Your task to perform on an android device: Toggle the flashlight Image 0: 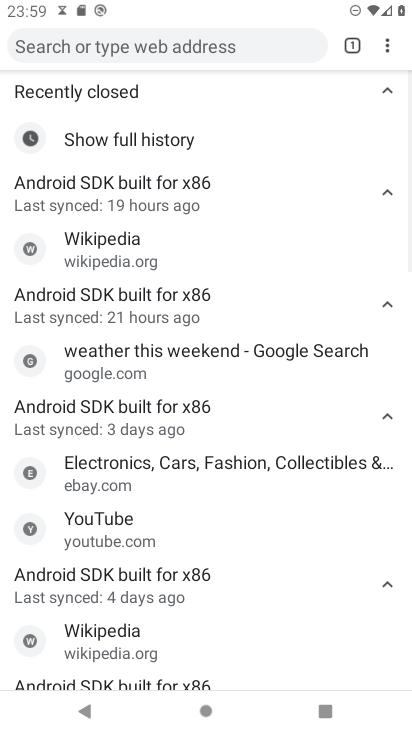
Step 0: press home button
Your task to perform on an android device: Toggle the flashlight Image 1: 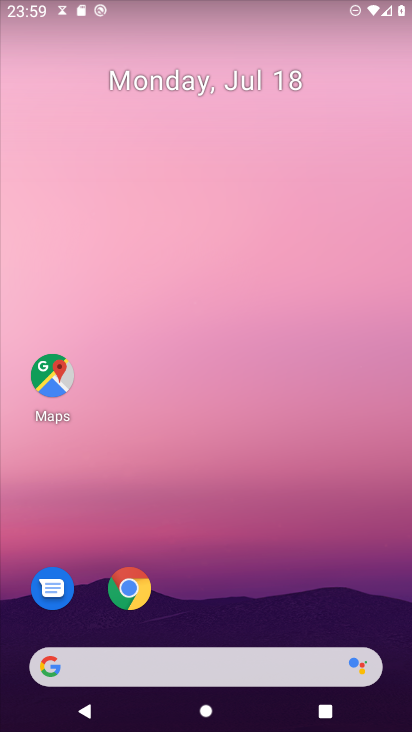
Step 1: task complete